Your task to perform on an android device: turn on showing notifications on the lock screen Image 0: 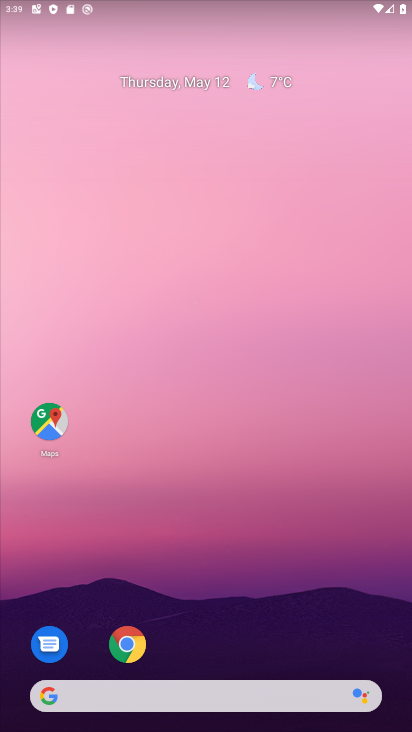
Step 0: drag from (210, 658) to (234, 45)
Your task to perform on an android device: turn on showing notifications on the lock screen Image 1: 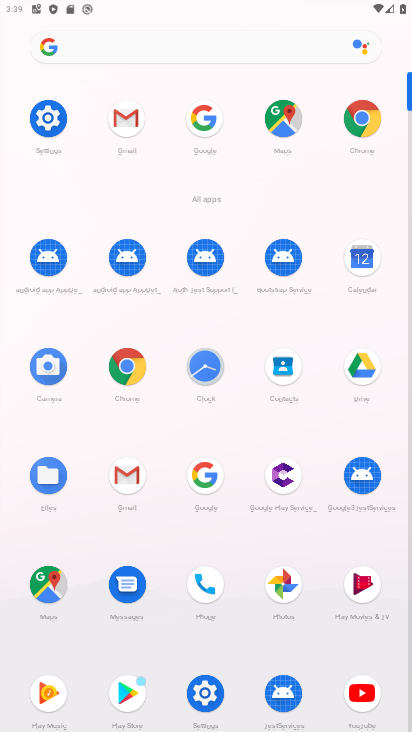
Step 1: click (49, 115)
Your task to perform on an android device: turn on showing notifications on the lock screen Image 2: 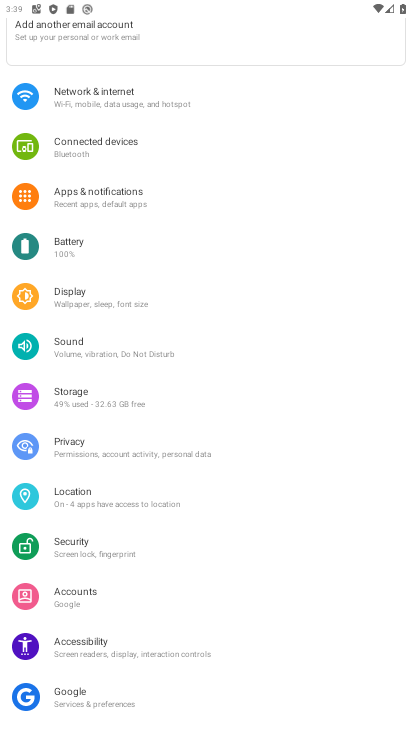
Step 2: click (139, 193)
Your task to perform on an android device: turn on showing notifications on the lock screen Image 3: 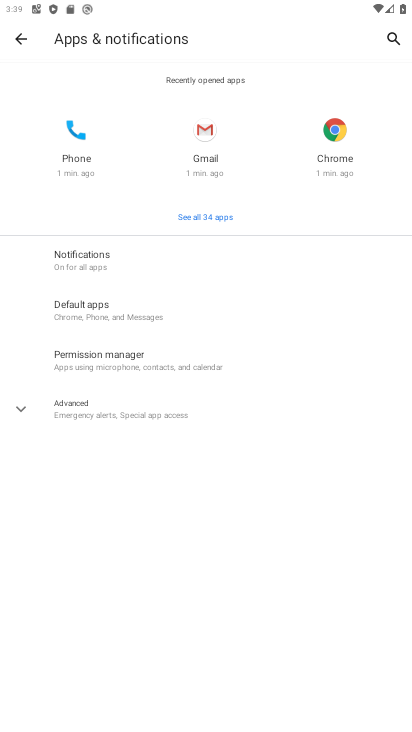
Step 3: click (116, 259)
Your task to perform on an android device: turn on showing notifications on the lock screen Image 4: 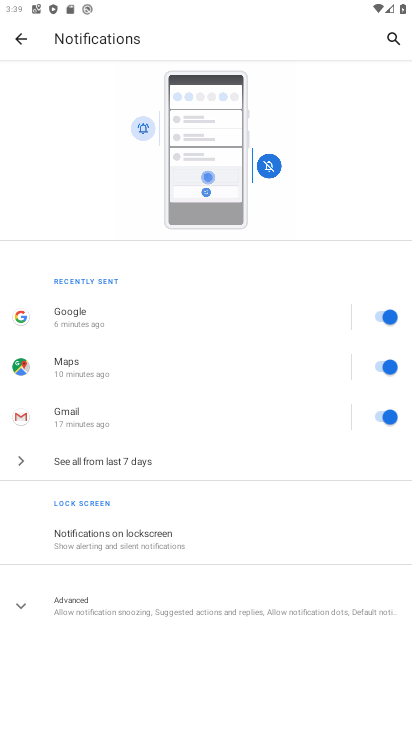
Step 4: click (193, 540)
Your task to perform on an android device: turn on showing notifications on the lock screen Image 5: 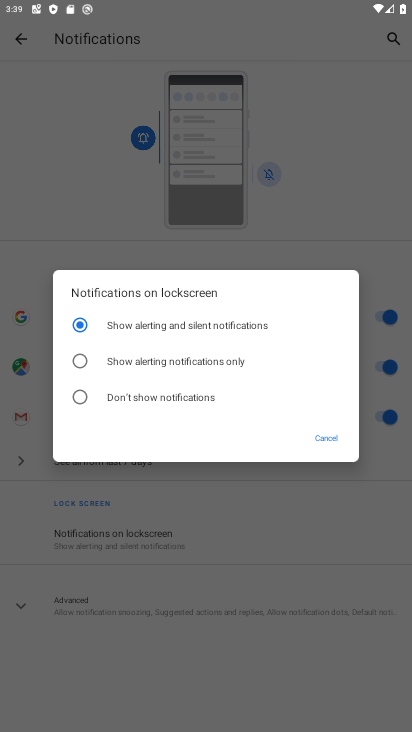
Step 5: click (79, 360)
Your task to perform on an android device: turn on showing notifications on the lock screen Image 6: 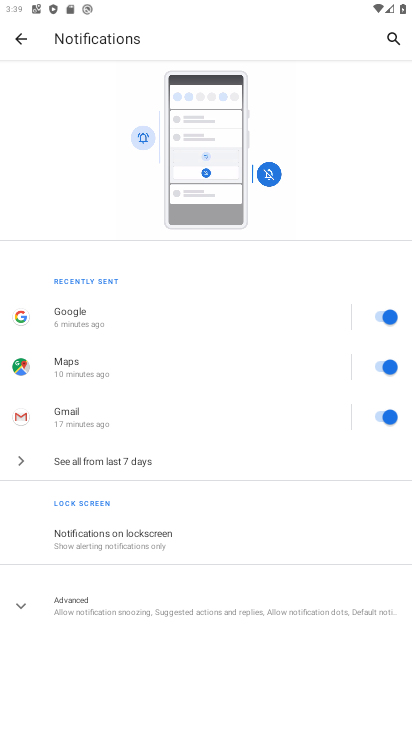
Step 6: task complete